Your task to perform on an android device: Go to sound settings Image 0: 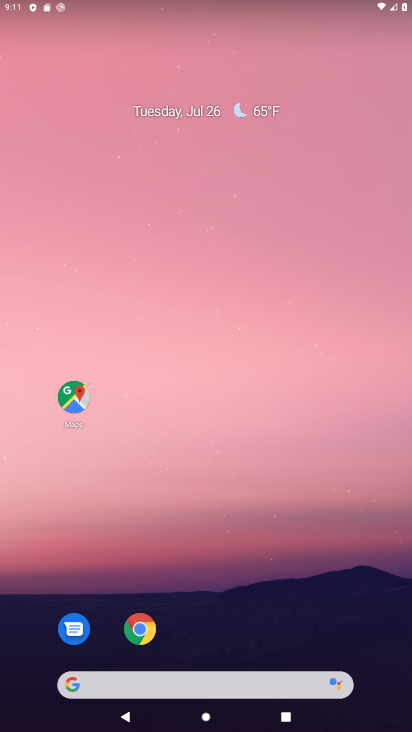
Step 0: drag from (310, 610) to (227, 156)
Your task to perform on an android device: Go to sound settings Image 1: 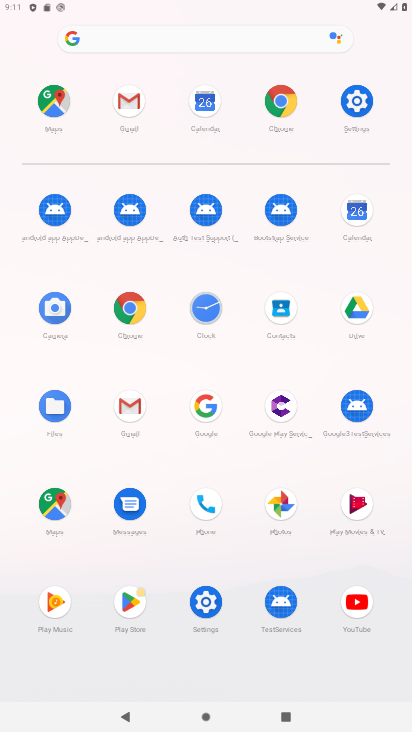
Step 1: click (362, 104)
Your task to perform on an android device: Go to sound settings Image 2: 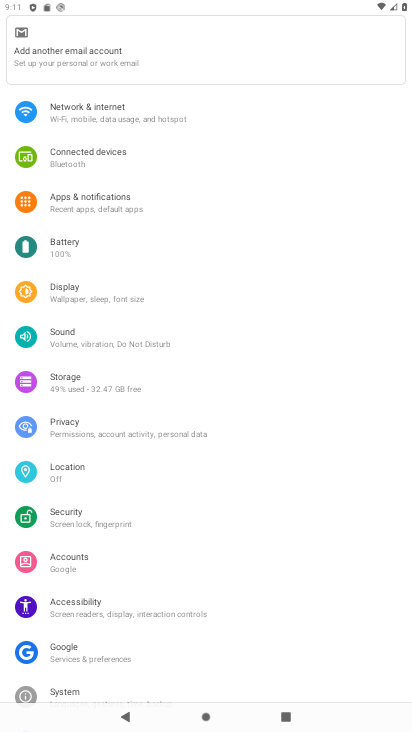
Step 2: click (79, 334)
Your task to perform on an android device: Go to sound settings Image 3: 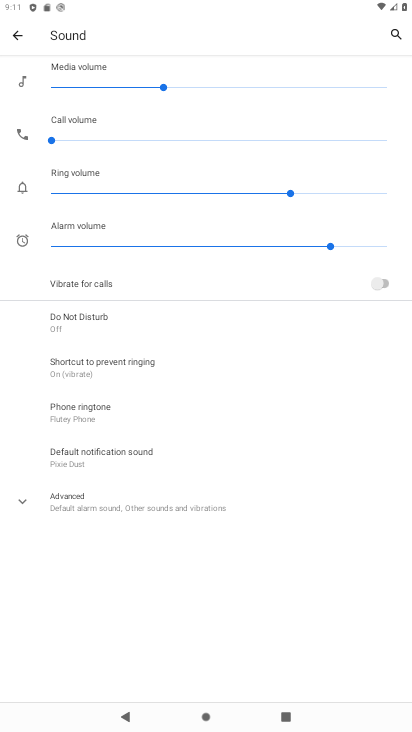
Step 3: task complete